Your task to perform on an android device: Open the calendar and show me this week's events Image 0: 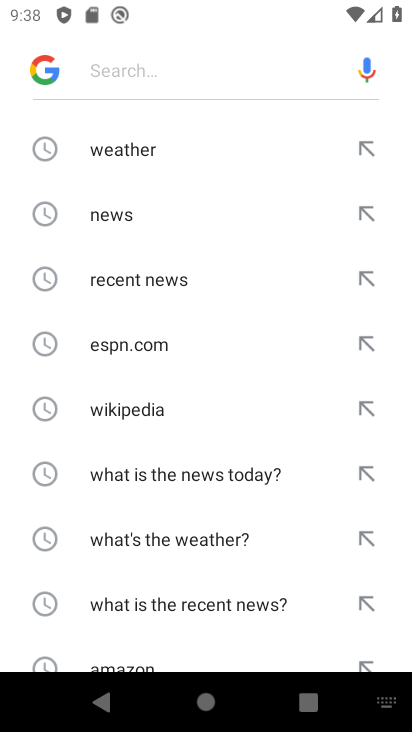
Step 0: press home button
Your task to perform on an android device: Open the calendar and show me this week's events Image 1: 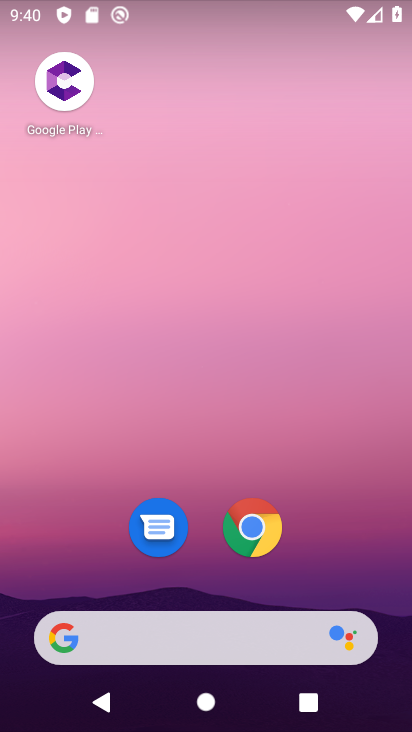
Step 1: drag from (202, 552) to (276, 37)
Your task to perform on an android device: Open the calendar and show me this week's events Image 2: 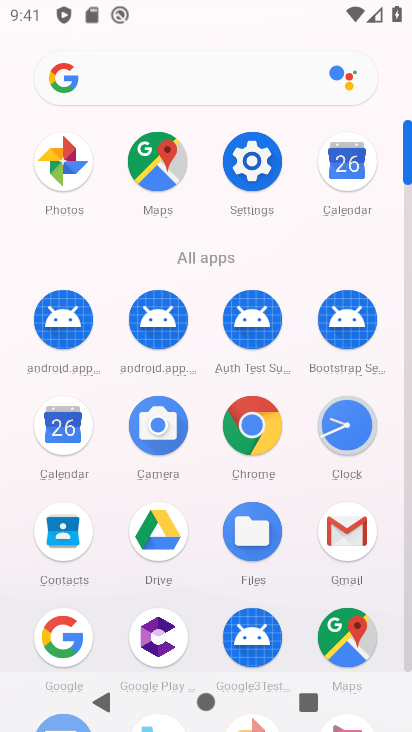
Step 2: click (50, 423)
Your task to perform on an android device: Open the calendar and show me this week's events Image 3: 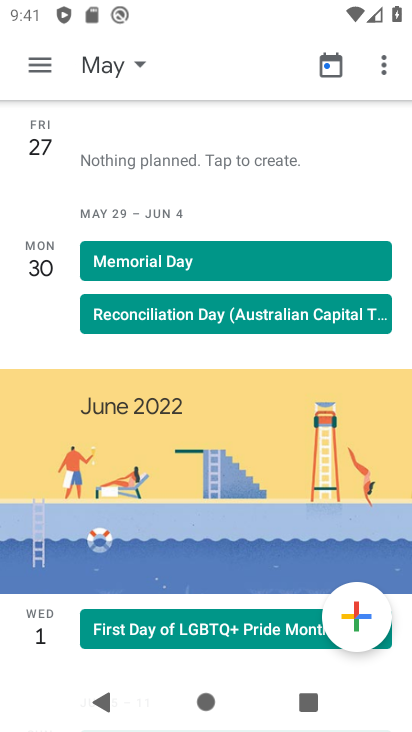
Step 3: click (132, 269)
Your task to perform on an android device: Open the calendar and show me this week's events Image 4: 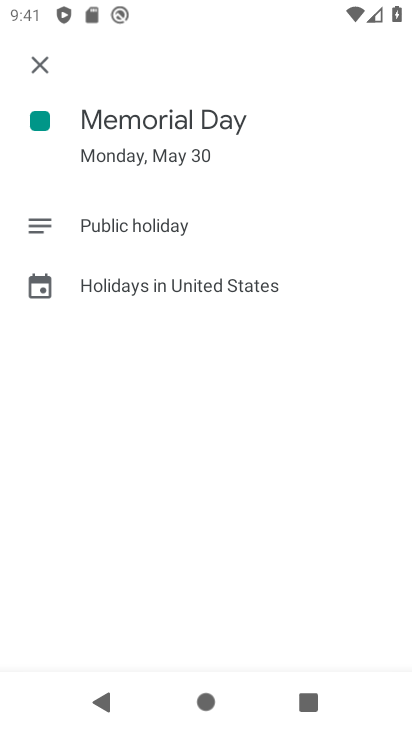
Step 4: task complete